Your task to perform on an android device: open sync settings in chrome Image 0: 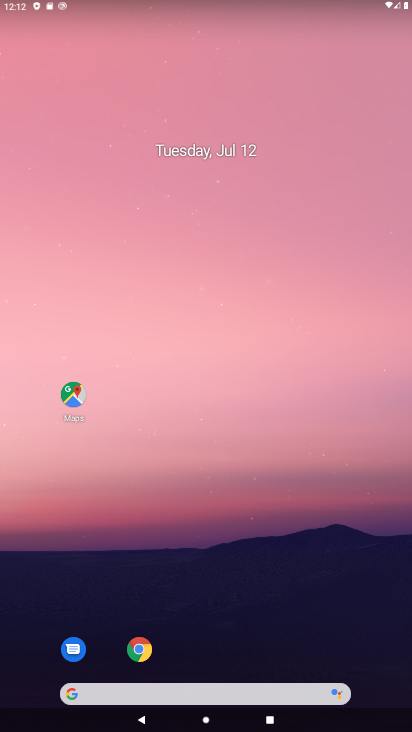
Step 0: drag from (333, 671) to (84, 12)
Your task to perform on an android device: open sync settings in chrome Image 1: 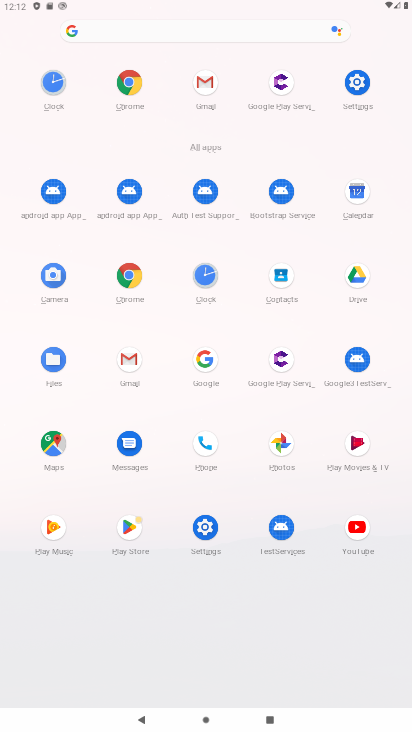
Step 1: click (120, 81)
Your task to perform on an android device: open sync settings in chrome Image 2: 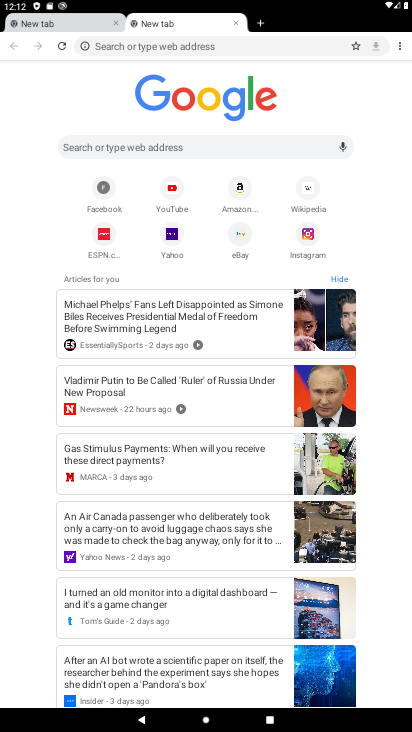
Step 2: click (400, 41)
Your task to perform on an android device: open sync settings in chrome Image 3: 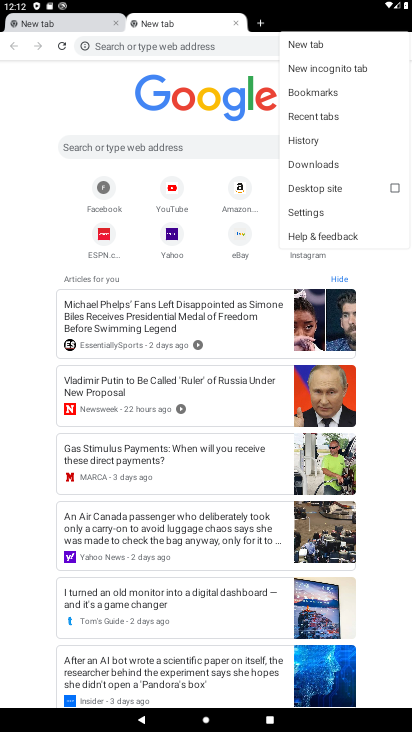
Step 3: click (309, 206)
Your task to perform on an android device: open sync settings in chrome Image 4: 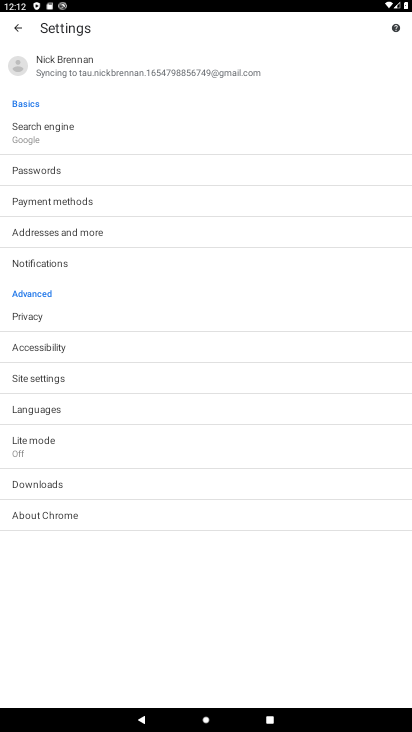
Step 4: click (115, 381)
Your task to perform on an android device: open sync settings in chrome Image 5: 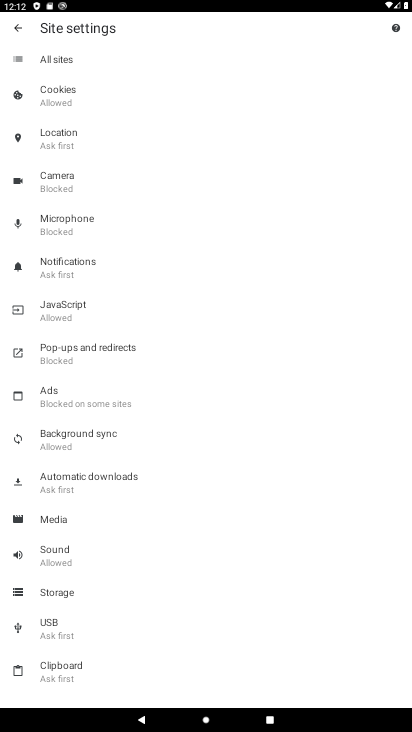
Step 5: click (95, 438)
Your task to perform on an android device: open sync settings in chrome Image 6: 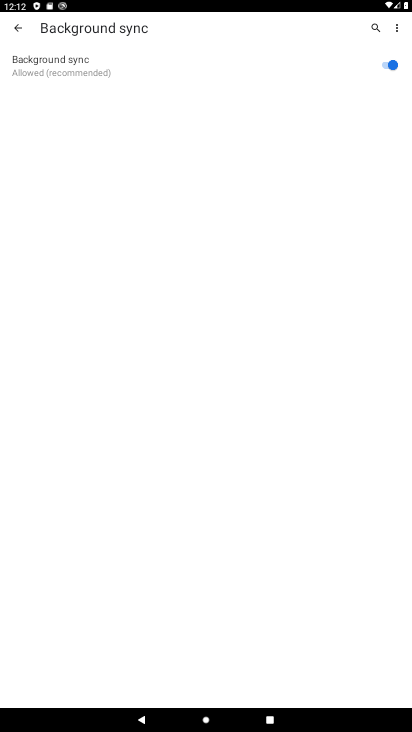
Step 6: task complete